Your task to perform on an android device: manage bookmarks in the chrome app Image 0: 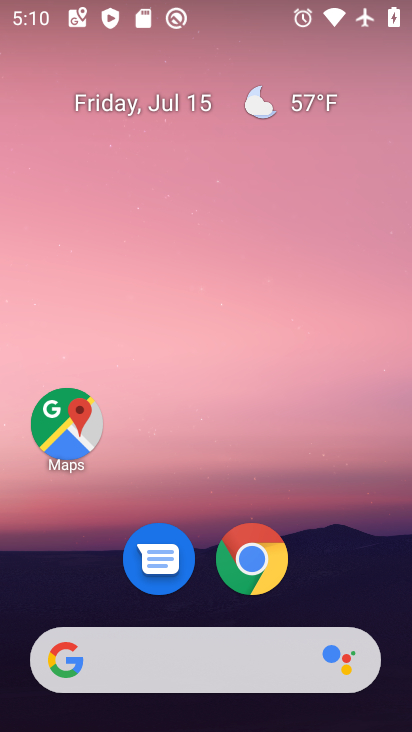
Step 0: click (245, 568)
Your task to perform on an android device: manage bookmarks in the chrome app Image 1: 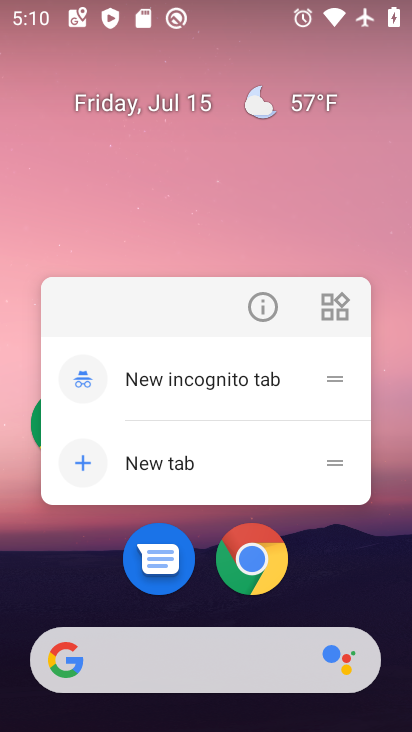
Step 1: click (250, 567)
Your task to perform on an android device: manage bookmarks in the chrome app Image 2: 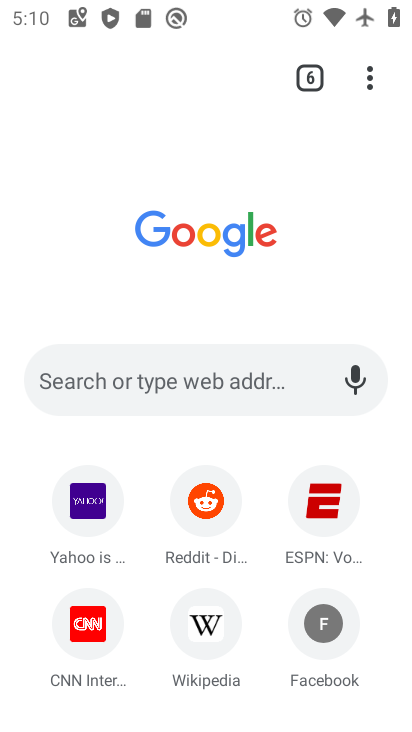
Step 2: drag from (363, 70) to (150, 289)
Your task to perform on an android device: manage bookmarks in the chrome app Image 3: 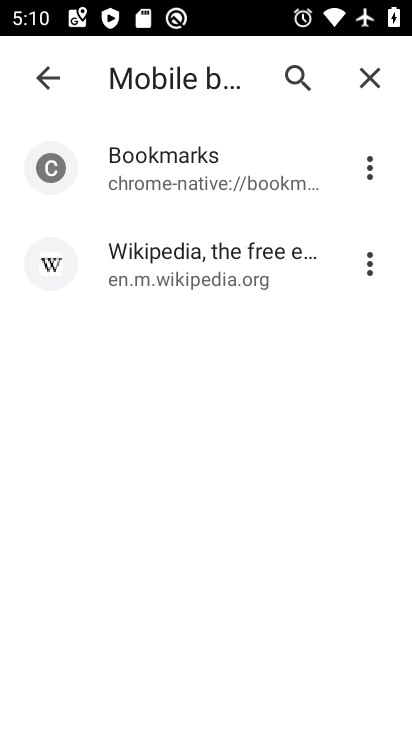
Step 3: click (367, 264)
Your task to perform on an android device: manage bookmarks in the chrome app Image 4: 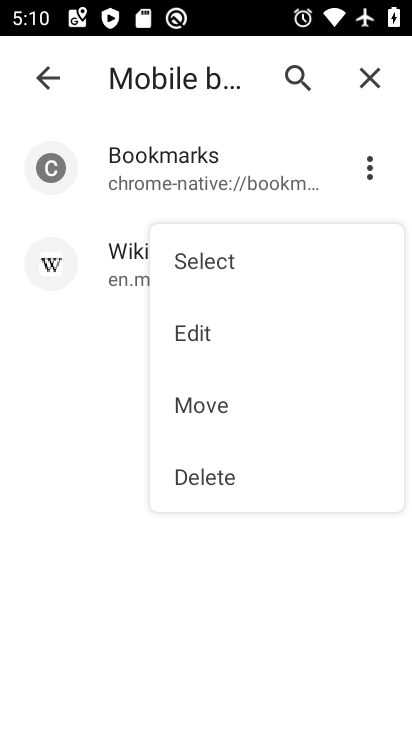
Step 4: click (233, 472)
Your task to perform on an android device: manage bookmarks in the chrome app Image 5: 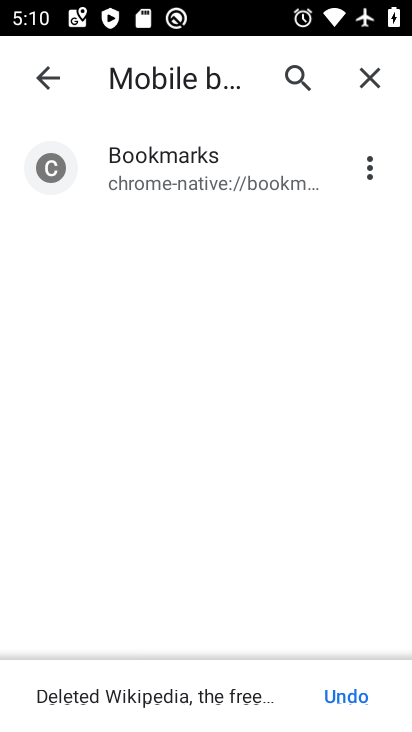
Step 5: task complete